Your task to perform on an android device: See recent photos Image 0: 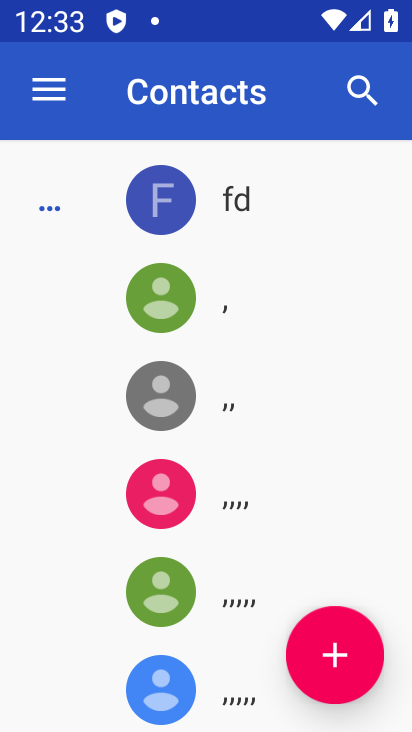
Step 0: press home button
Your task to perform on an android device: See recent photos Image 1: 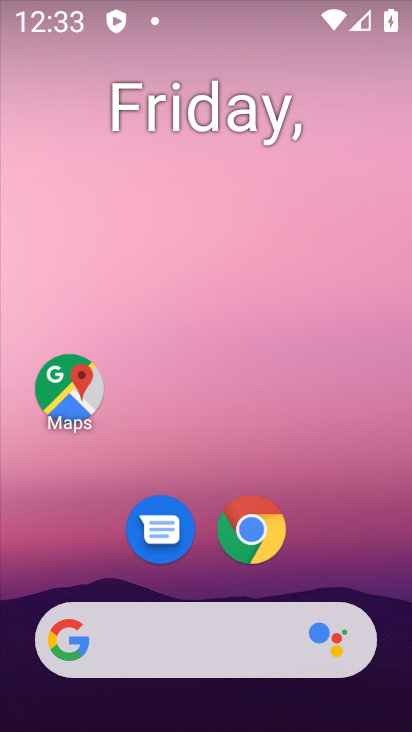
Step 1: drag from (239, 591) to (232, 229)
Your task to perform on an android device: See recent photos Image 2: 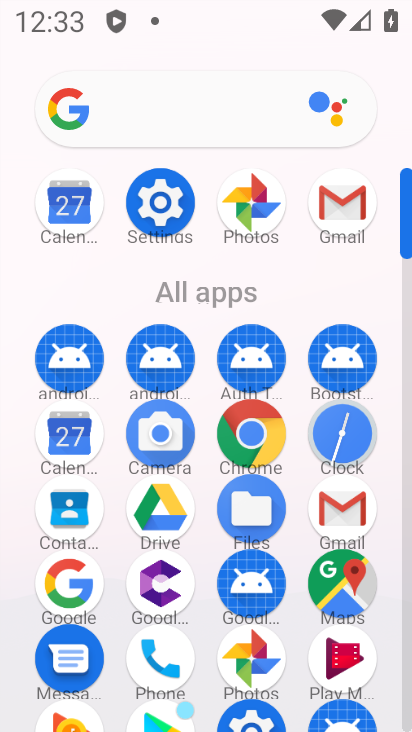
Step 2: click (260, 187)
Your task to perform on an android device: See recent photos Image 3: 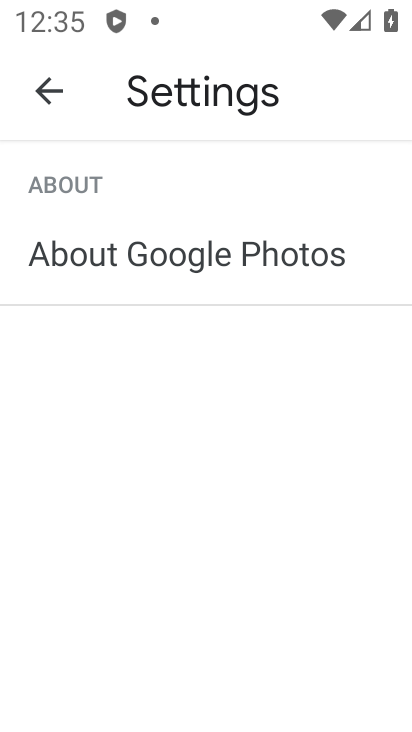
Step 3: press home button
Your task to perform on an android device: See recent photos Image 4: 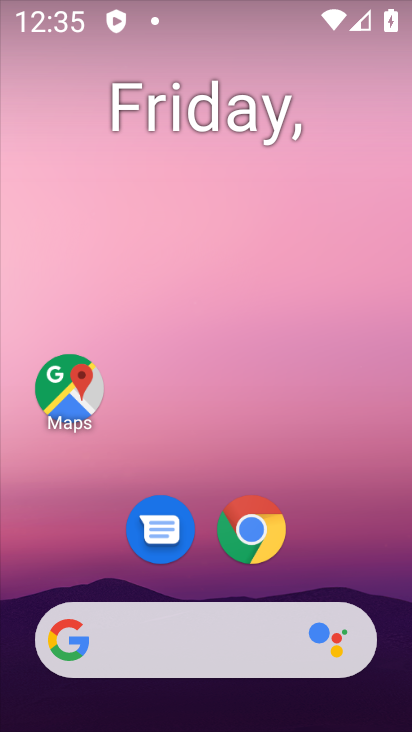
Step 4: drag from (122, 522) to (168, 206)
Your task to perform on an android device: See recent photos Image 5: 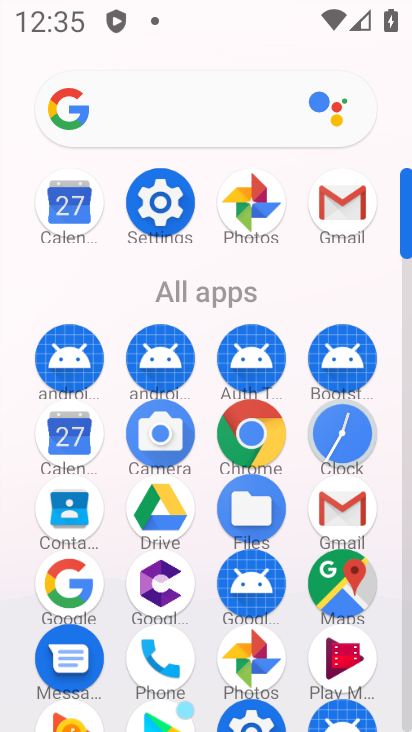
Step 5: click (255, 653)
Your task to perform on an android device: See recent photos Image 6: 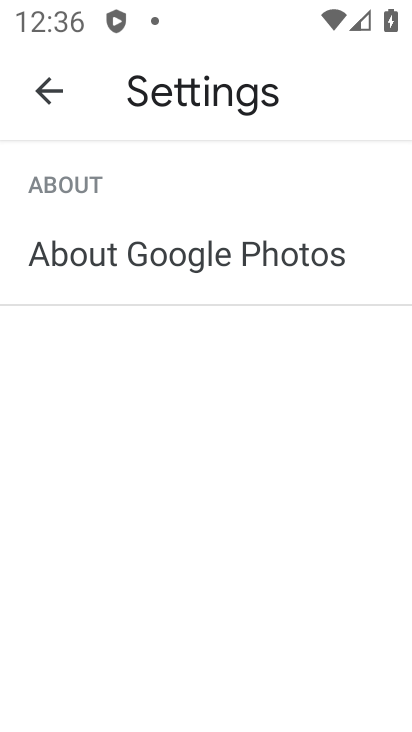
Step 6: click (39, 90)
Your task to perform on an android device: See recent photos Image 7: 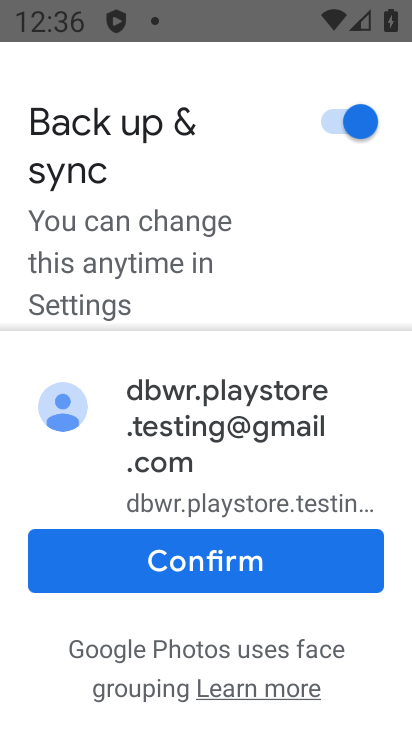
Step 7: click (221, 553)
Your task to perform on an android device: See recent photos Image 8: 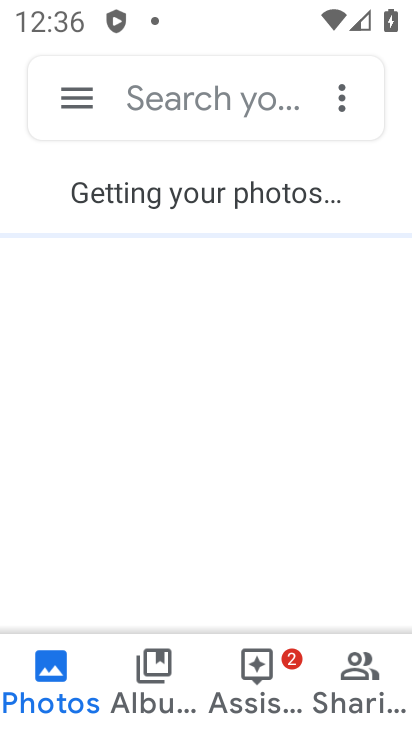
Step 8: click (126, 321)
Your task to perform on an android device: See recent photos Image 9: 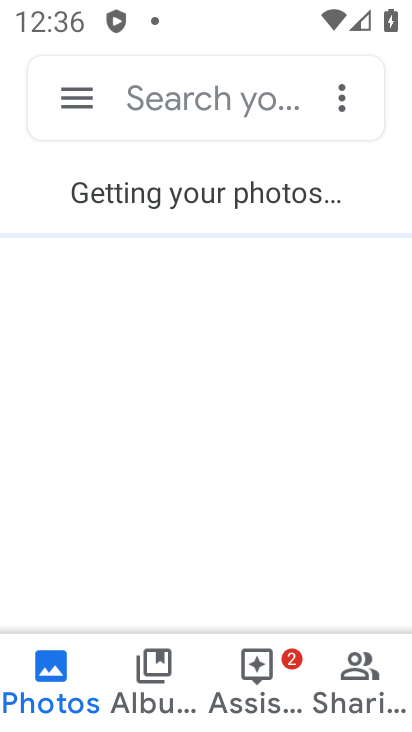
Step 9: task complete